Your task to perform on an android device: Go to CNN.com Image 0: 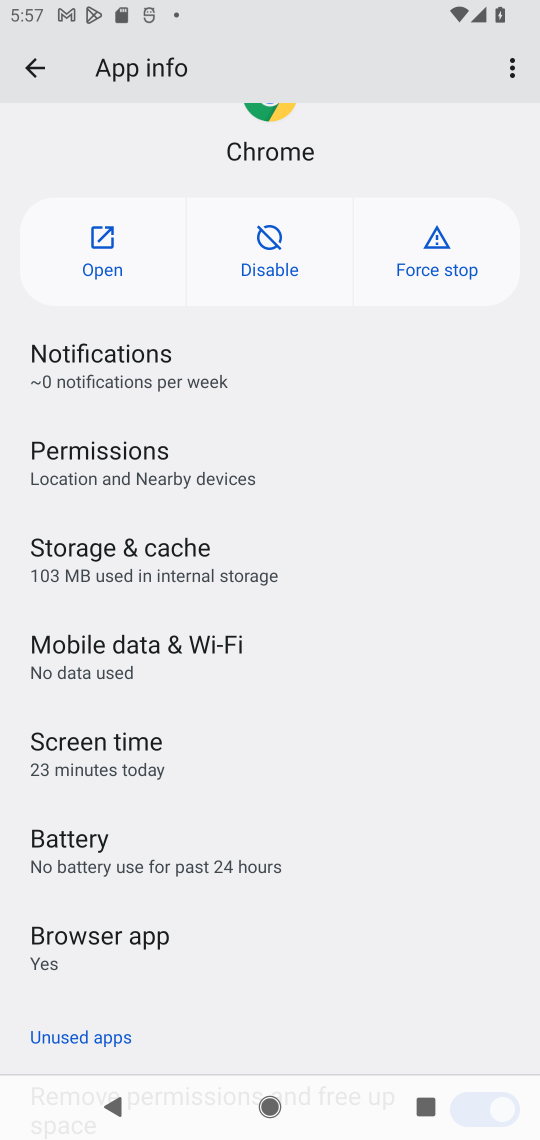
Step 0: press home button
Your task to perform on an android device: Go to CNN.com Image 1: 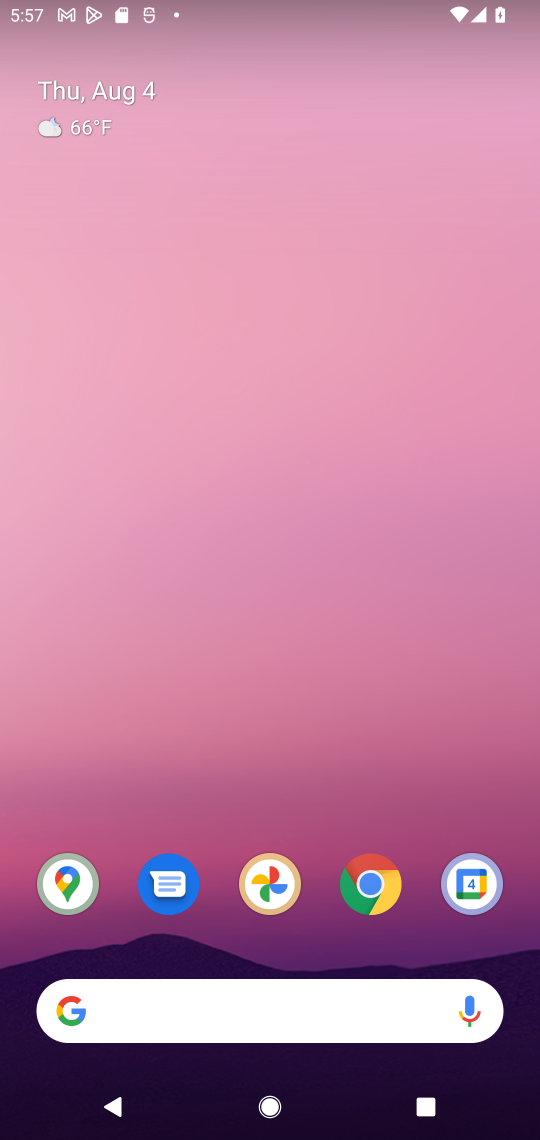
Step 1: click (348, 890)
Your task to perform on an android device: Go to CNN.com Image 2: 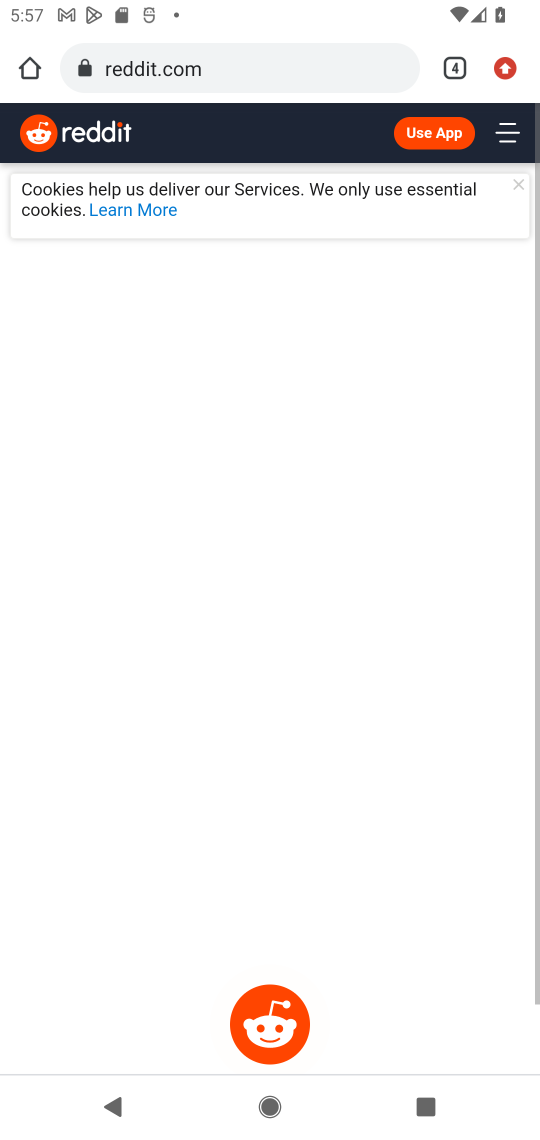
Step 2: click (227, 83)
Your task to perform on an android device: Go to CNN.com Image 3: 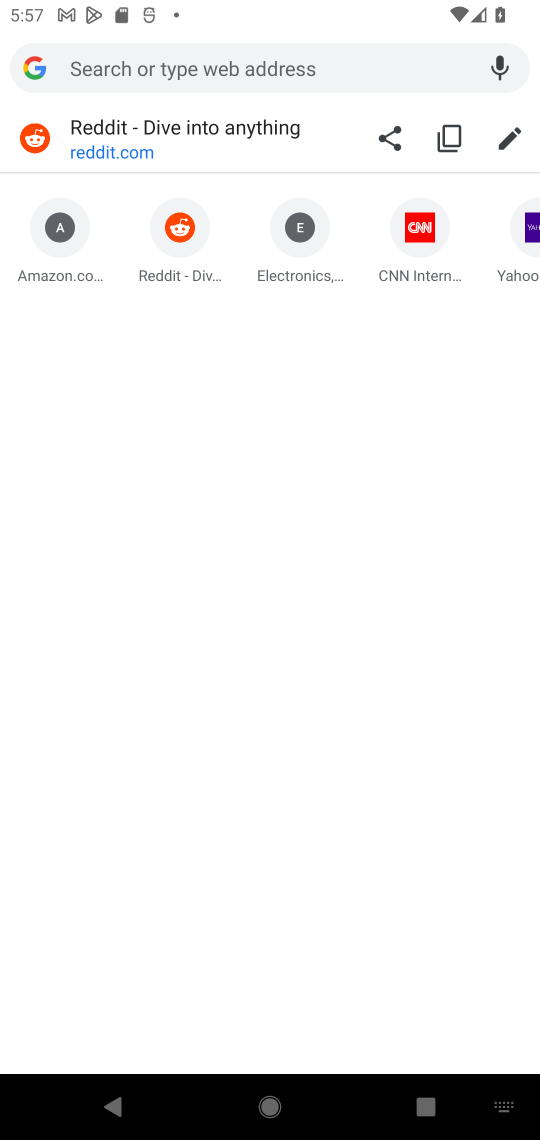
Step 3: type "cnn.com "
Your task to perform on an android device: Go to CNN.com Image 4: 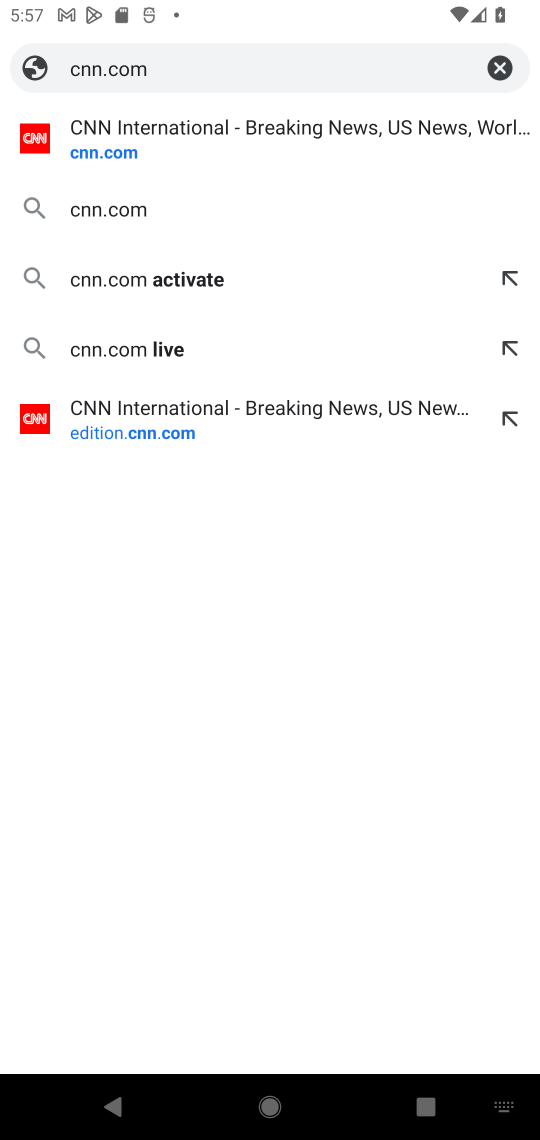
Step 4: click (259, 136)
Your task to perform on an android device: Go to CNN.com Image 5: 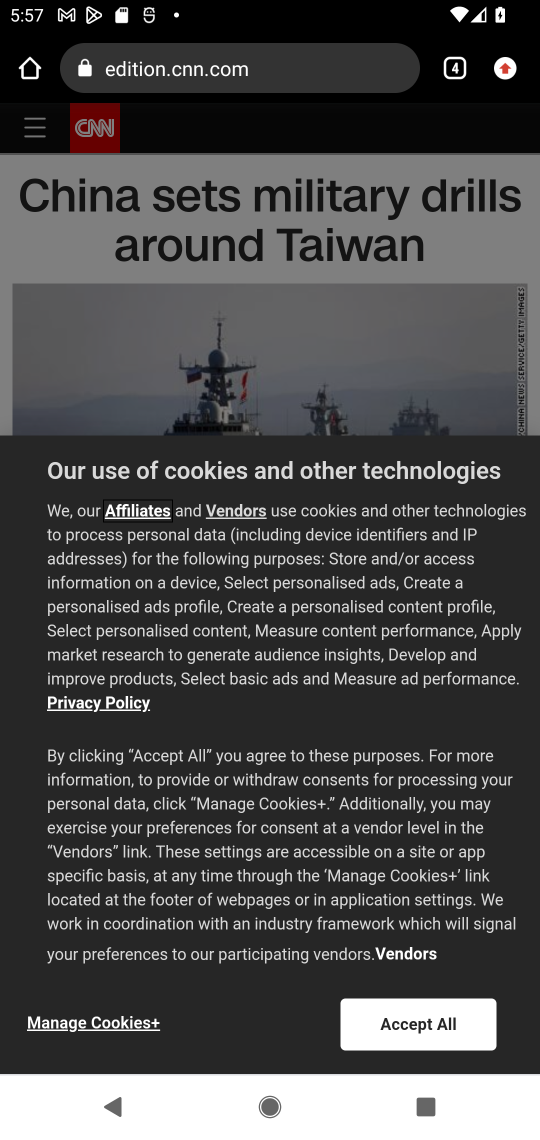
Step 5: task complete